Your task to perform on an android device: turn off javascript in the chrome app Image 0: 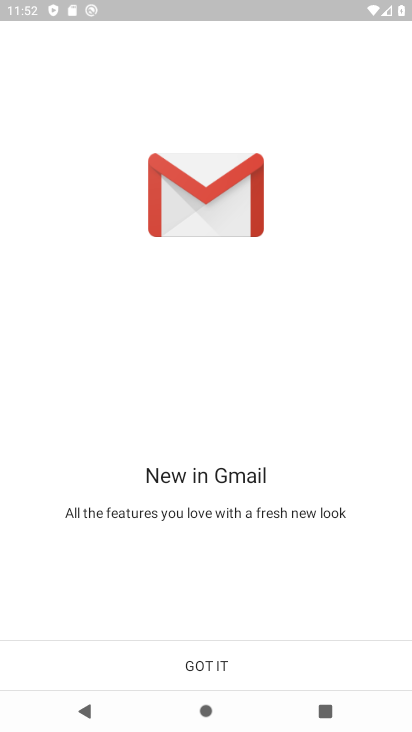
Step 0: press home button
Your task to perform on an android device: turn off javascript in the chrome app Image 1: 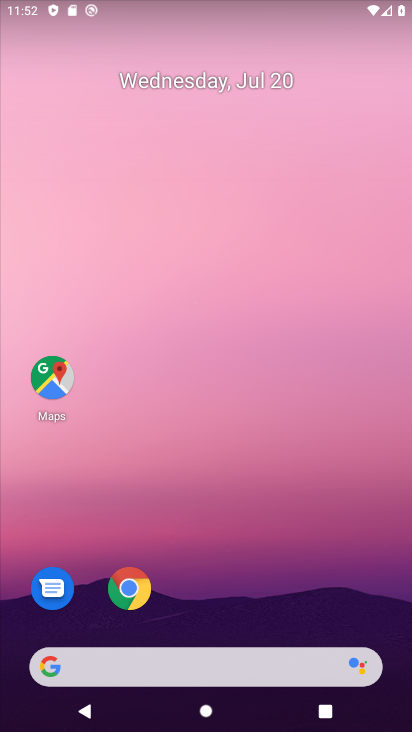
Step 1: click (141, 588)
Your task to perform on an android device: turn off javascript in the chrome app Image 2: 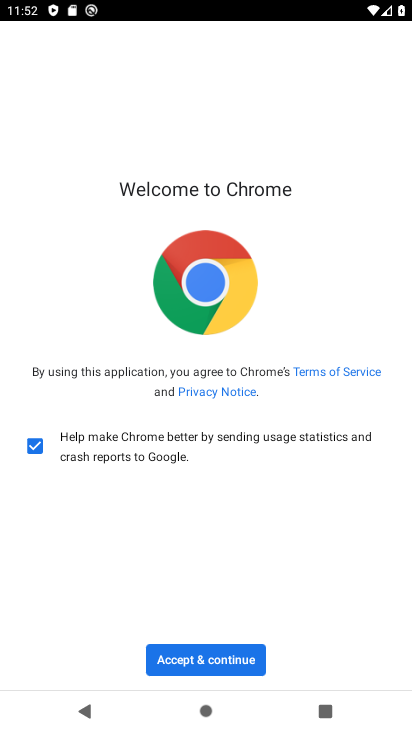
Step 2: click (242, 655)
Your task to perform on an android device: turn off javascript in the chrome app Image 3: 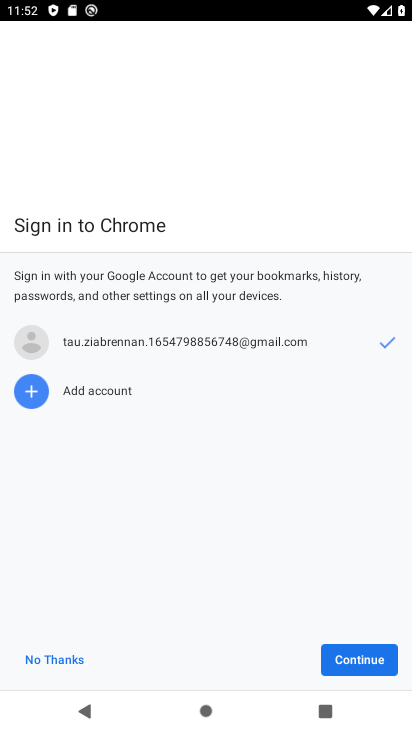
Step 3: click (327, 655)
Your task to perform on an android device: turn off javascript in the chrome app Image 4: 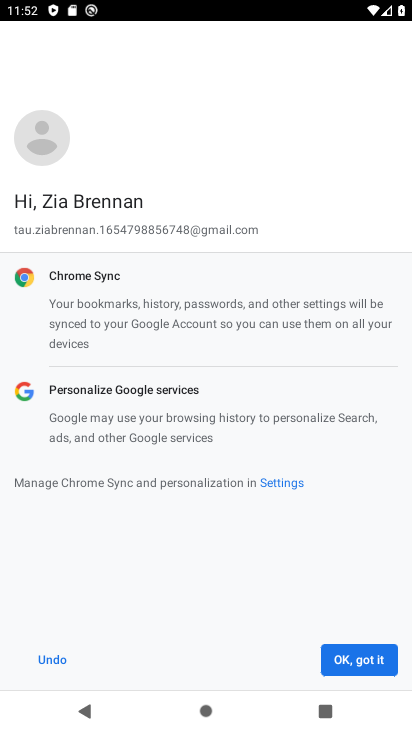
Step 4: click (327, 655)
Your task to perform on an android device: turn off javascript in the chrome app Image 5: 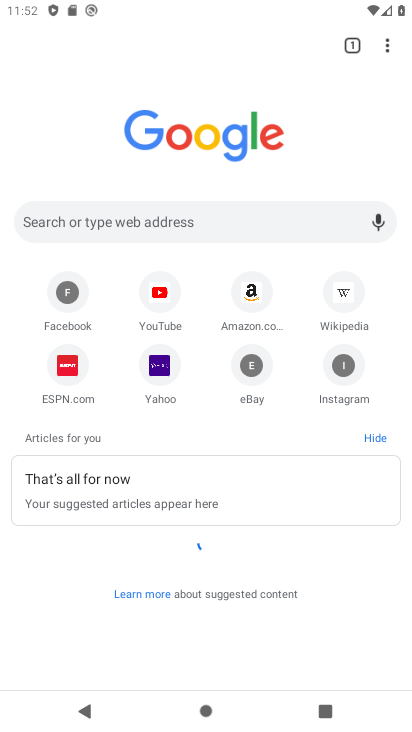
Step 5: click (387, 38)
Your task to perform on an android device: turn off javascript in the chrome app Image 6: 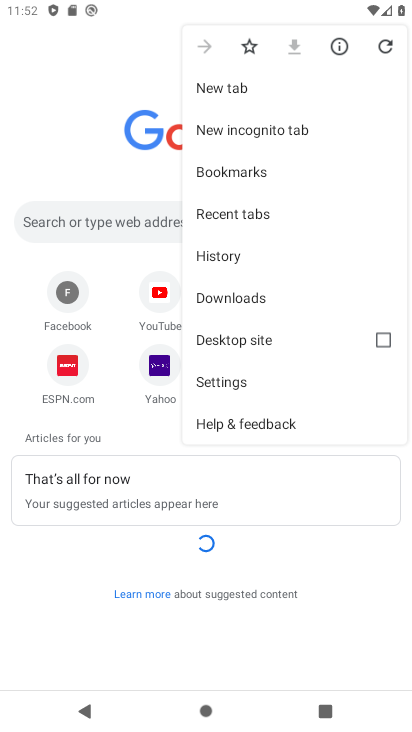
Step 6: click (247, 393)
Your task to perform on an android device: turn off javascript in the chrome app Image 7: 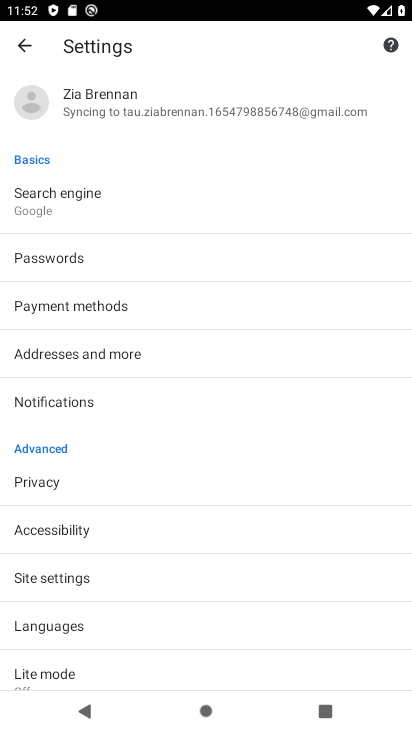
Step 7: click (118, 586)
Your task to perform on an android device: turn off javascript in the chrome app Image 8: 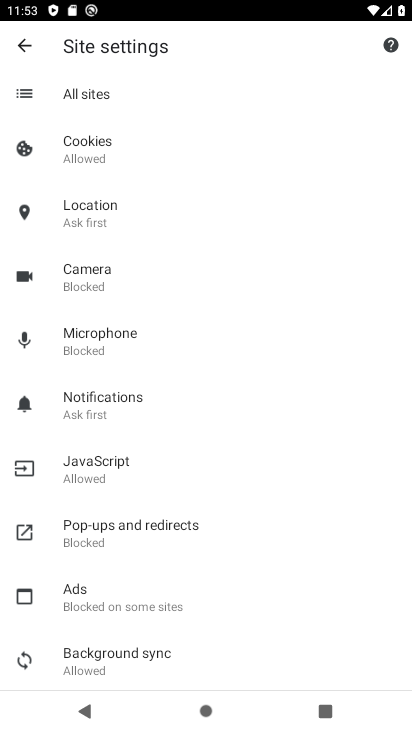
Step 8: click (115, 478)
Your task to perform on an android device: turn off javascript in the chrome app Image 9: 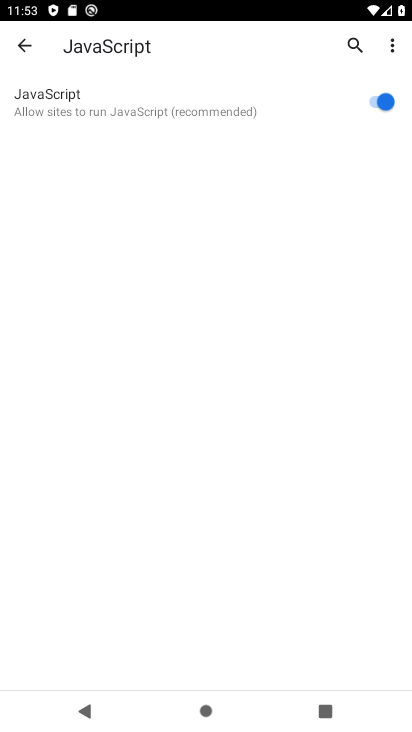
Step 9: click (364, 108)
Your task to perform on an android device: turn off javascript in the chrome app Image 10: 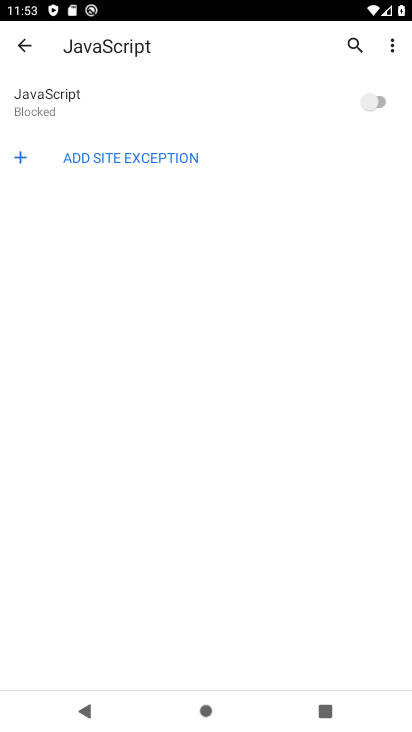
Step 10: task complete